Your task to perform on an android device: toggle priority inbox in the gmail app Image 0: 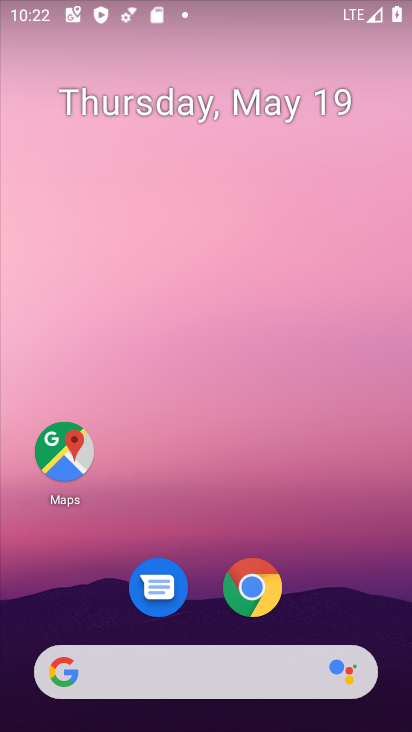
Step 0: drag from (202, 609) to (227, 228)
Your task to perform on an android device: toggle priority inbox in the gmail app Image 1: 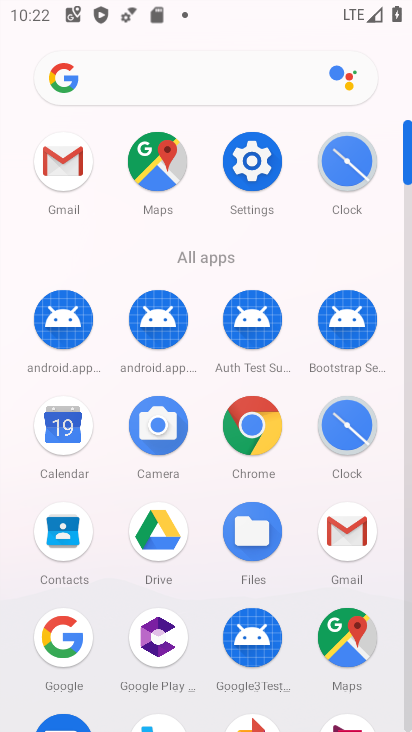
Step 1: click (56, 183)
Your task to perform on an android device: toggle priority inbox in the gmail app Image 2: 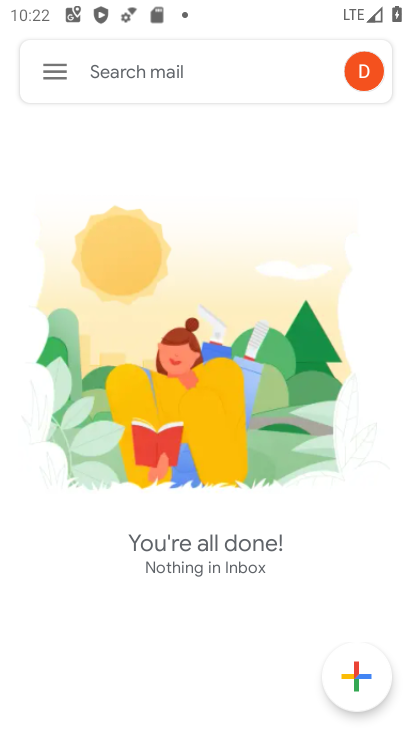
Step 2: click (51, 87)
Your task to perform on an android device: toggle priority inbox in the gmail app Image 3: 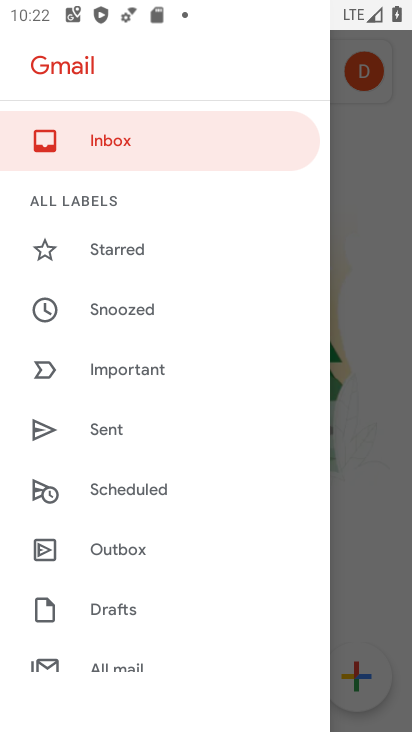
Step 3: drag from (176, 642) to (210, 123)
Your task to perform on an android device: toggle priority inbox in the gmail app Image 4: 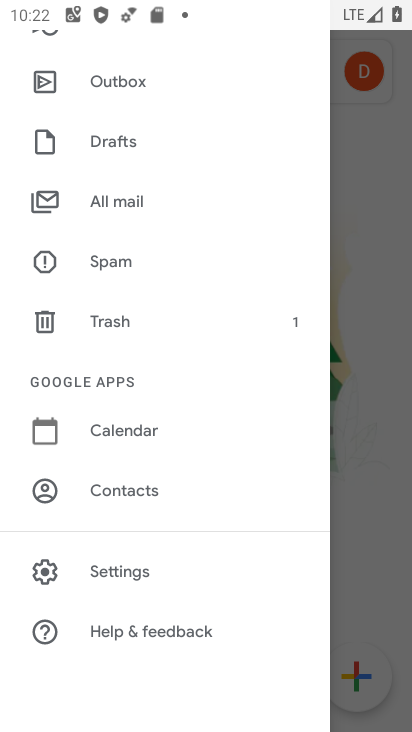
Step 4: click (157, 574)
Your task to perform on an android device: toggle priority inbox in the gmail app Image 5: 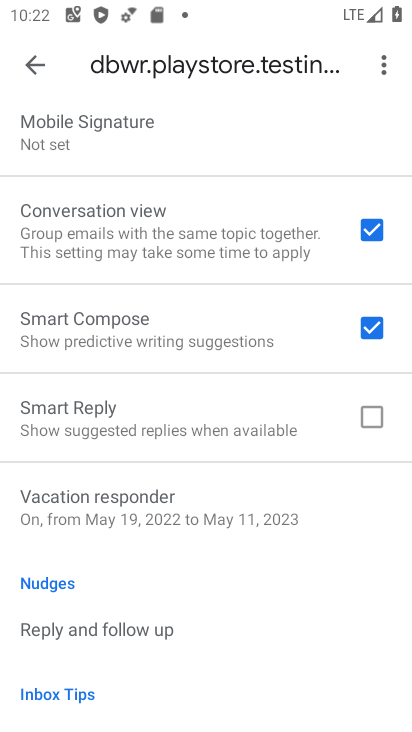
Step 5: drag from (208, 161) to (186, 682)
Your task to perform on an android device: toggle priority inbox in the gmail app Image 6: 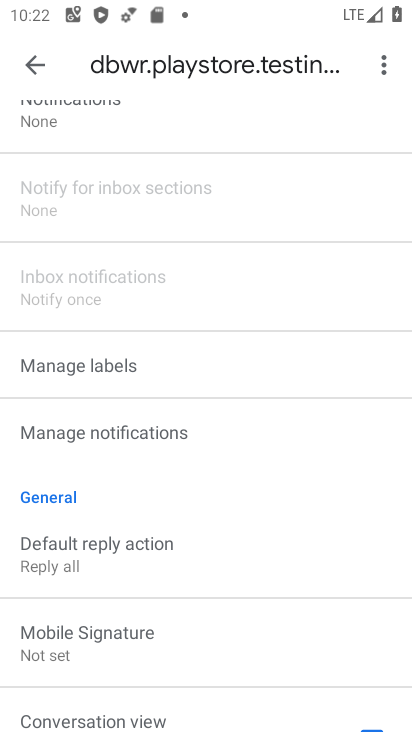
Step 6: drag from (227, 171) to (208, 611)
Your task to perform on an android device: toggle priority inbox in the gmail app Image 7: 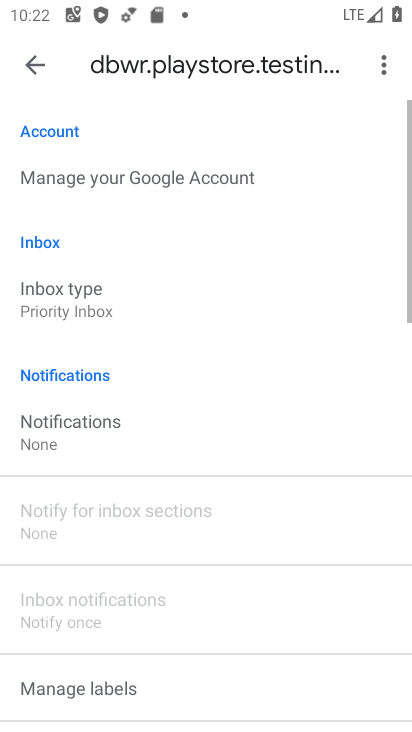
Step 7: drag from (118, 175) to (104, 594)
Your task to perform on an android device: toggle priority inbox in the gmail app Image 8: 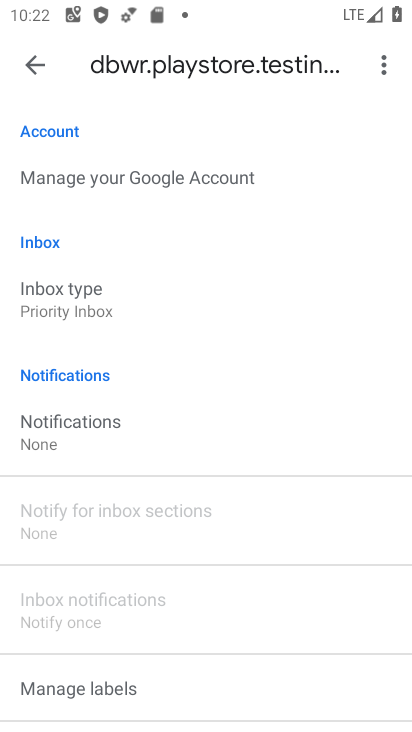
Step 8: click (123, 290)
Your task to perform on an android device: toggle priority inbox in the gmail app Image 9: 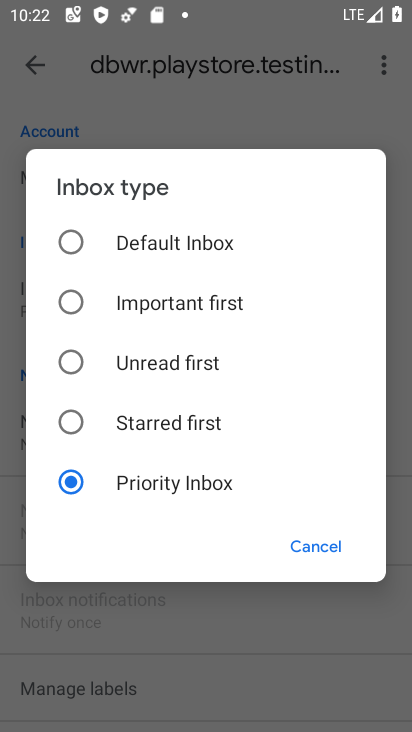
Step 9: click (123, 290)
Your task to perform on an android device: toggle priority inbox in the gmail app Image 10: 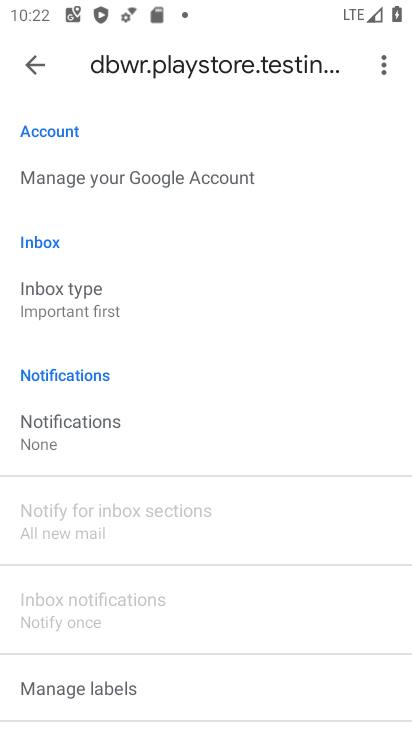
Step 10: task complete